Your task to perform on an android device: Open Wikipedia Image 0: 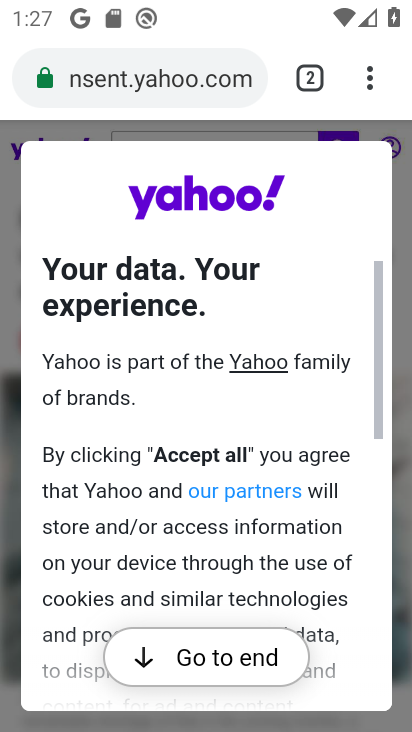
Step 0: click (299, 78)
Your task to perform on an android device: Open Wikipedia Image 1: 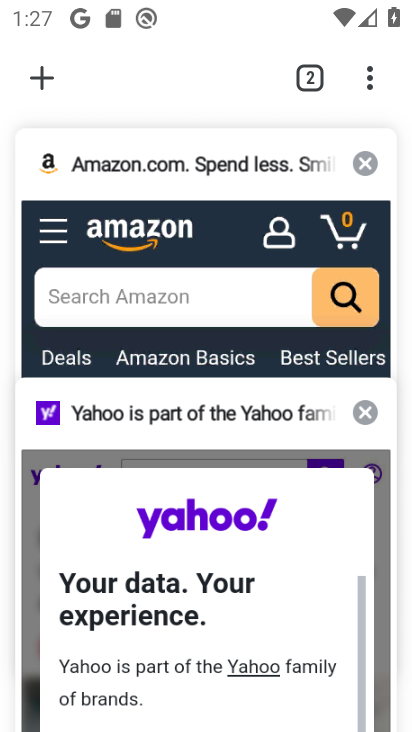
Step 1: click (49, 81)
Your task to perform on an android device: Open Wikipedia Image 2: 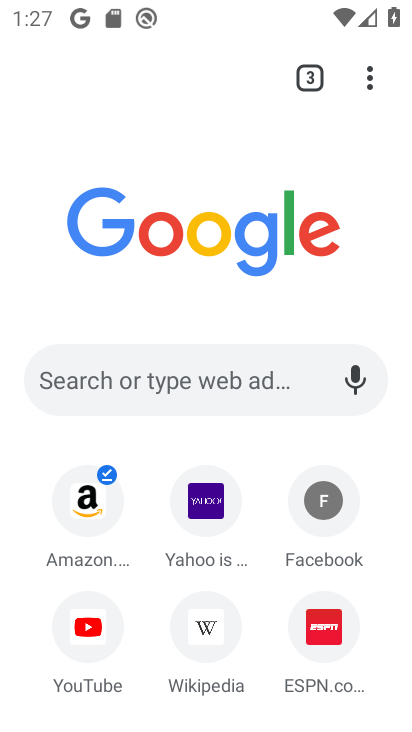
Step 2: click (197, 631)
Your task to perform on an android device: Open Wikipedia Image 3: 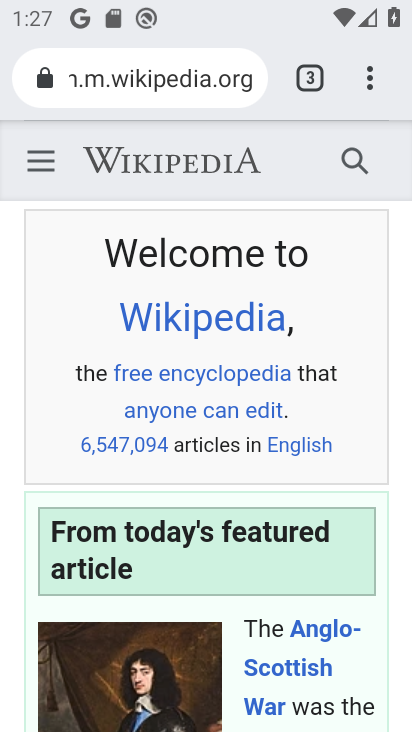
Step 3: task complete